Your task to perform on an android device: open app "Viber Messenger" Image 0: 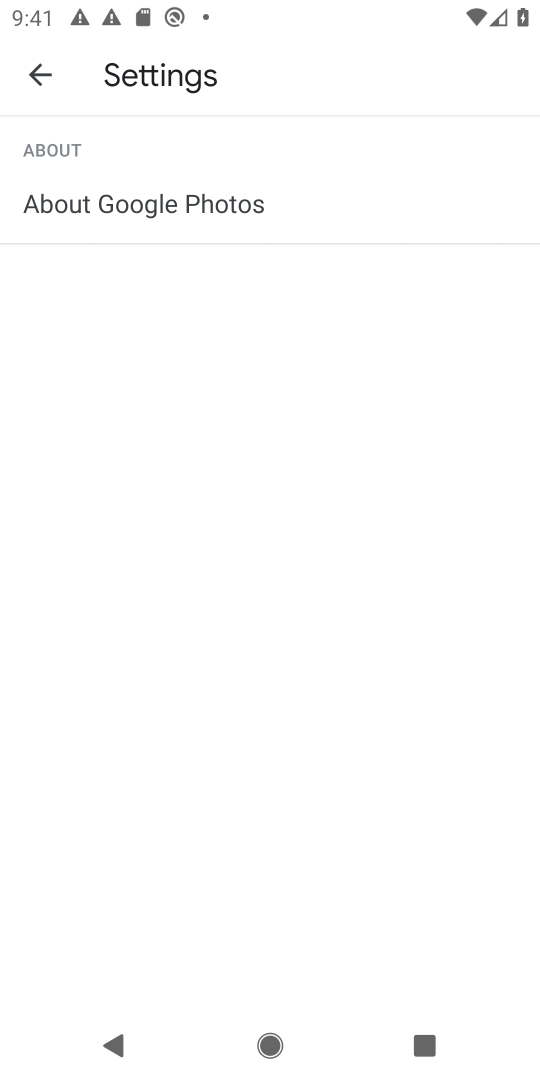
Step 0: press home button
Your task to perform on an android device: open app "Viber Messenger" Image 1: 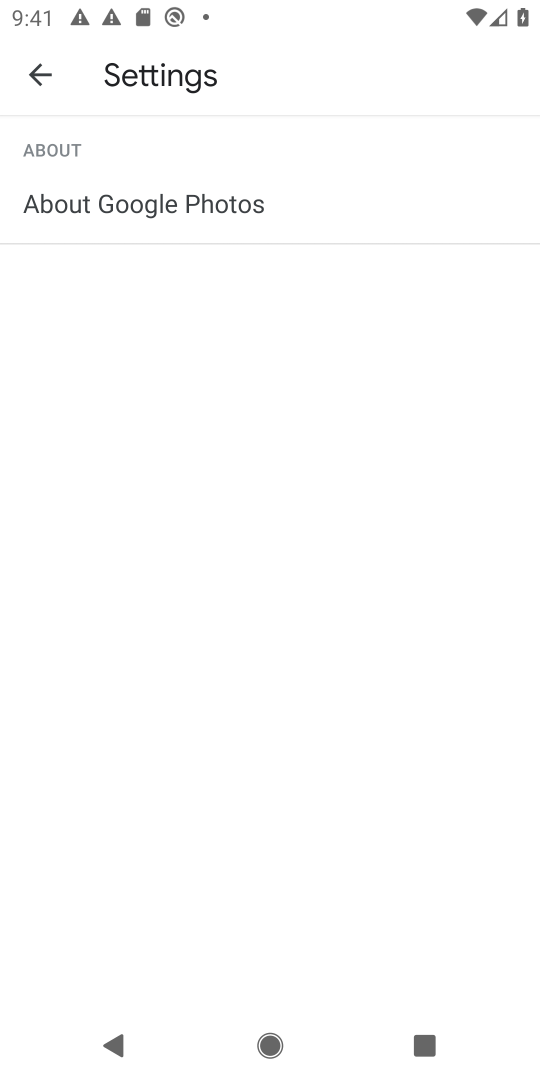
Step 1: press home button
Your task to perform on an android device: open app "Viber Messenger" Image 2: 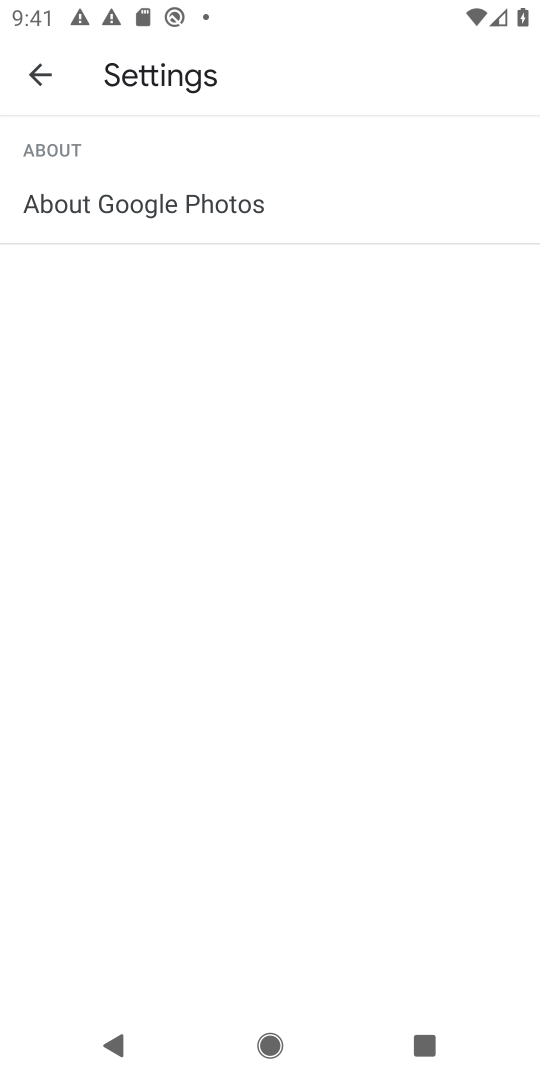
Step 2: drag from (343, 495) to (407, 54)
Your task to perform on an android device: open app "Viber Messenger" Image 3: 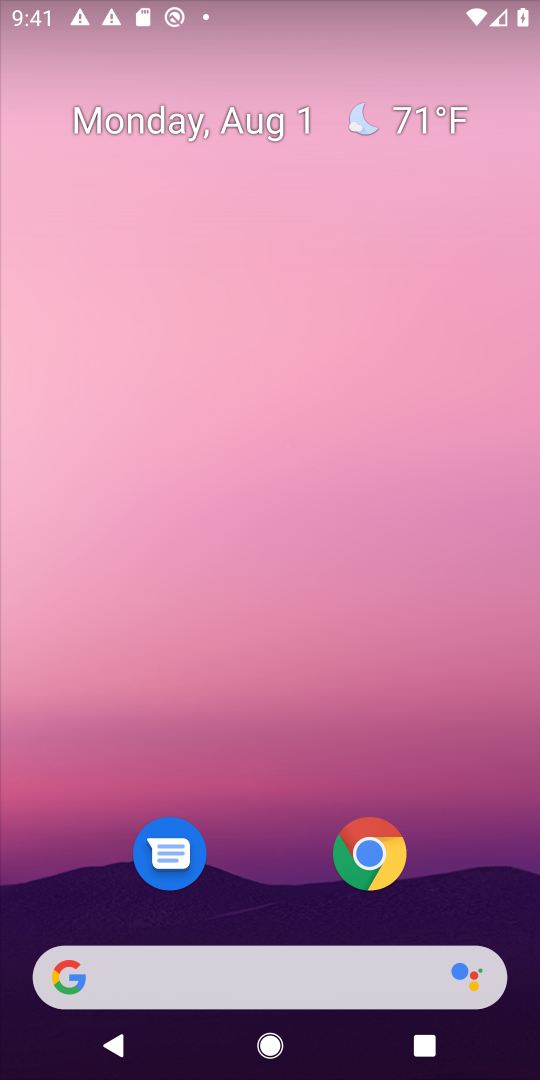
Step 3: drag from (228, 940) to (365, 294)
Your task to perform on an android device: open app "Viber Messenger" Image 4: 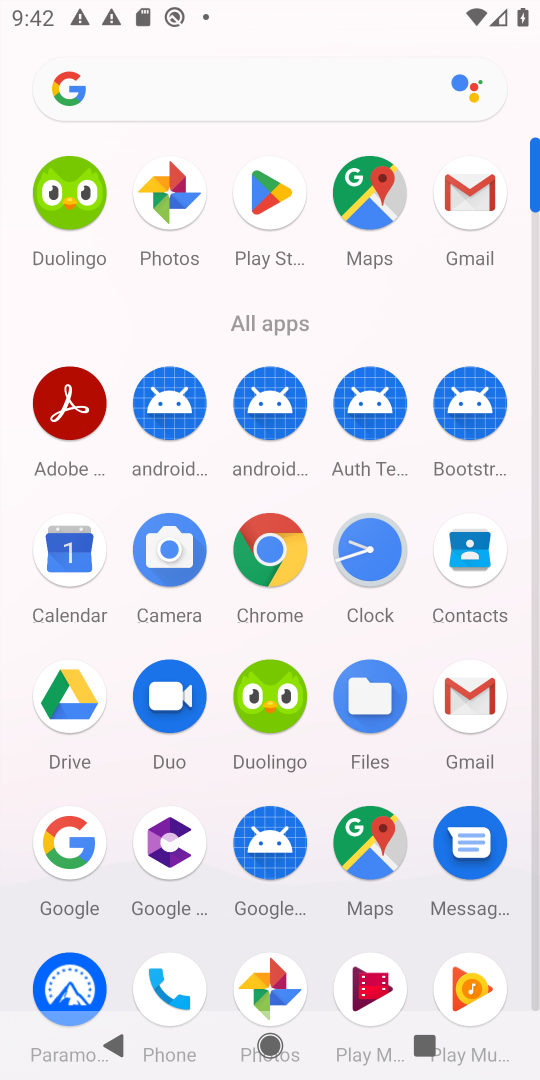
Step 4: click (262, 190)
Your task to perform on an android device: open app "Viber Messenger" Image 5: 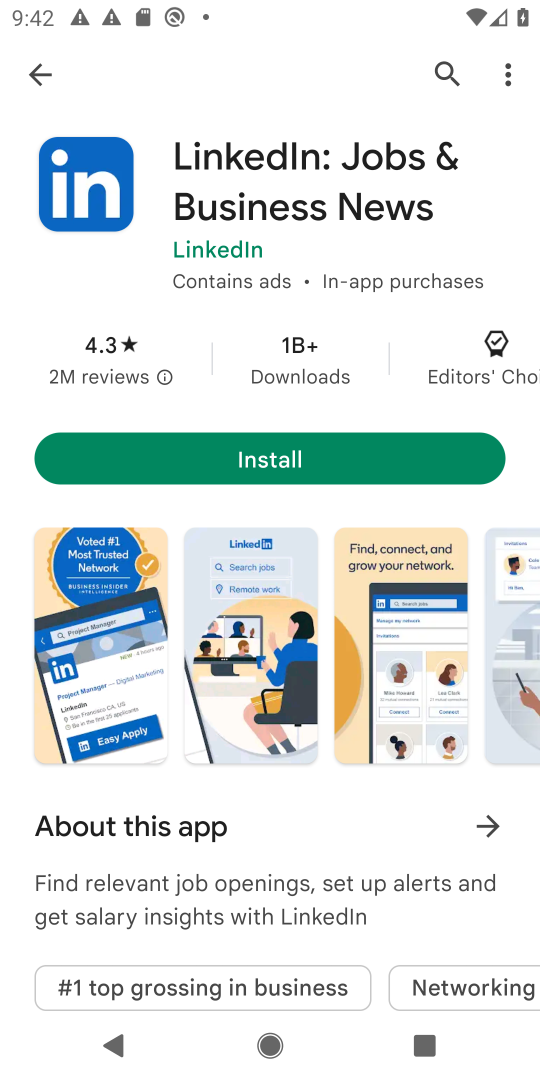
Step 5: click (457, 63)
Your task to perform on an android device: open app "Viber Messenger" Image 6: 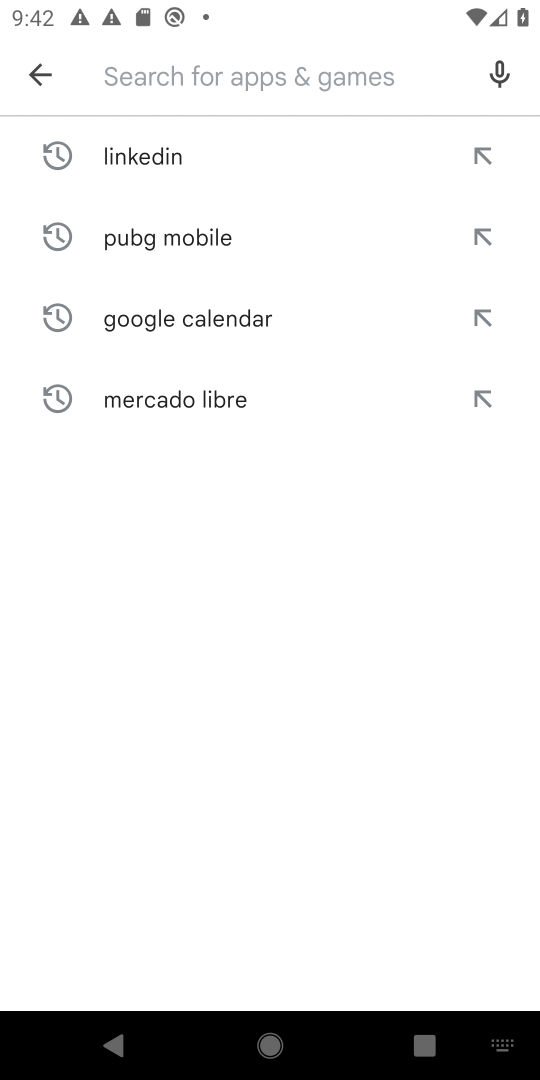
Step 6: click (179, 90)
Your task to perform on an android device: open app "Viber Messenger" Image 7: 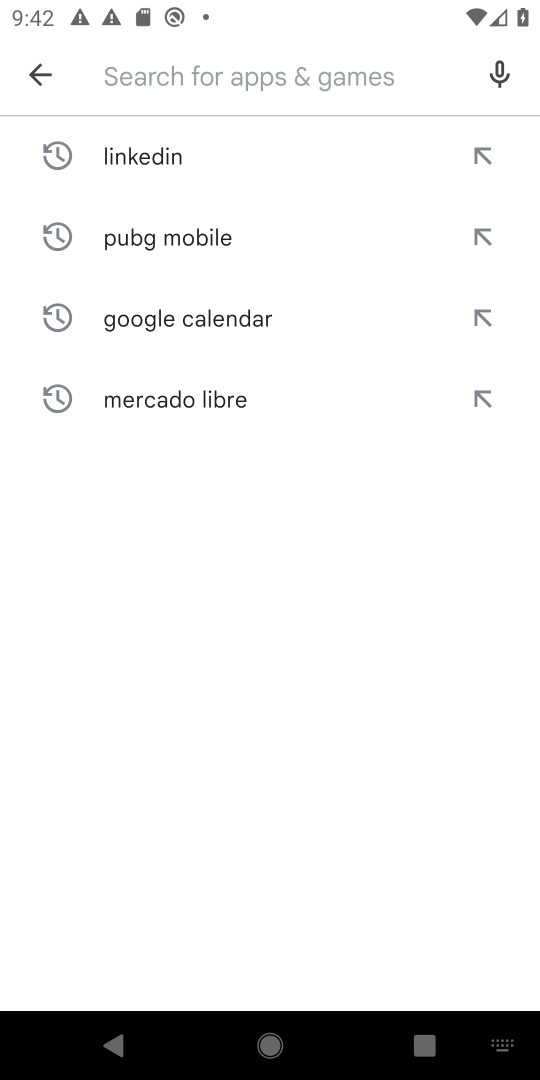
Step 7: type "Viber Messenger"
Your task to perform on an android device: open app "Viber Messenger" Image 8: 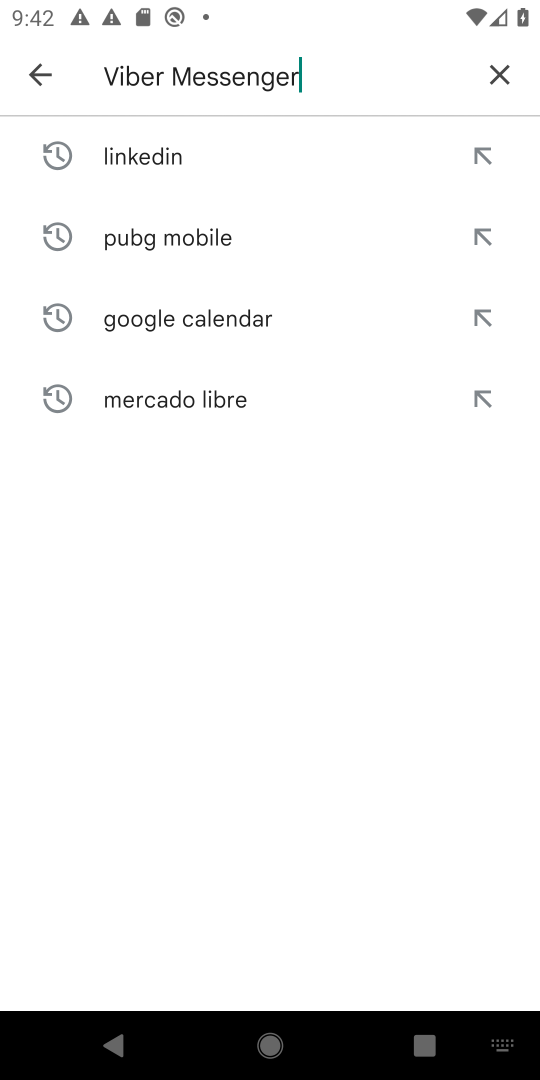
Step 8: type ""
Your task to perform on an android device: open app "Viber Messenger" Image 9: 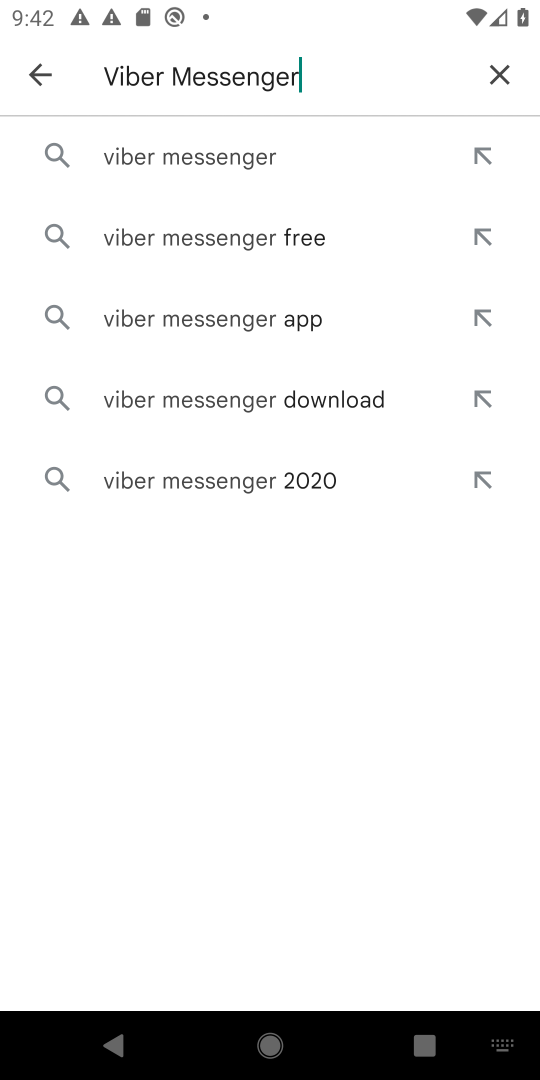
Step 9: click (161, 169)
Your task to perform on an android device: open app "Viber Messenger" Image 10: 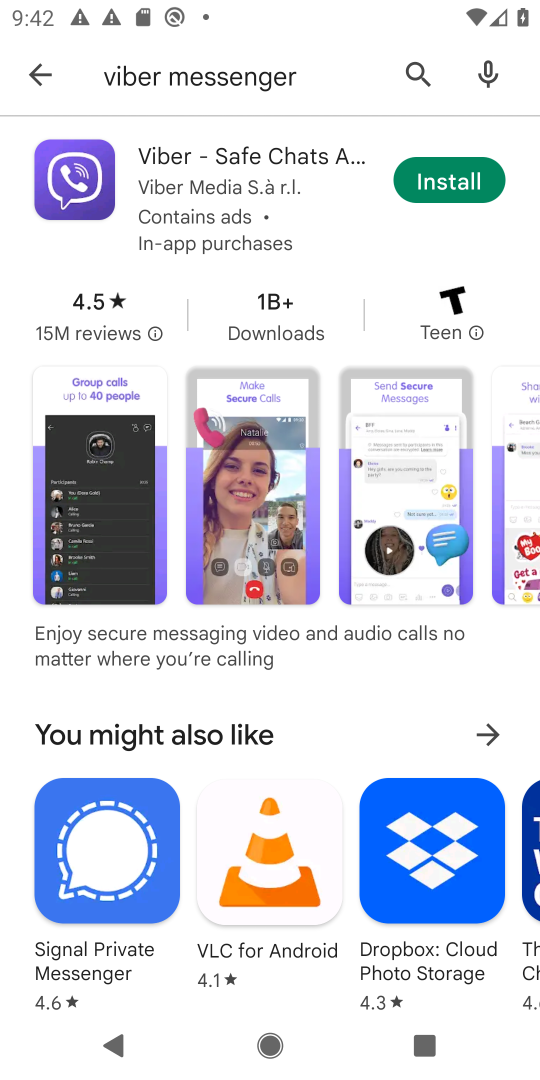
Step 10: click (183, 181)
Your task to perform on an android device: open app "Viber Messenger" Image 11: 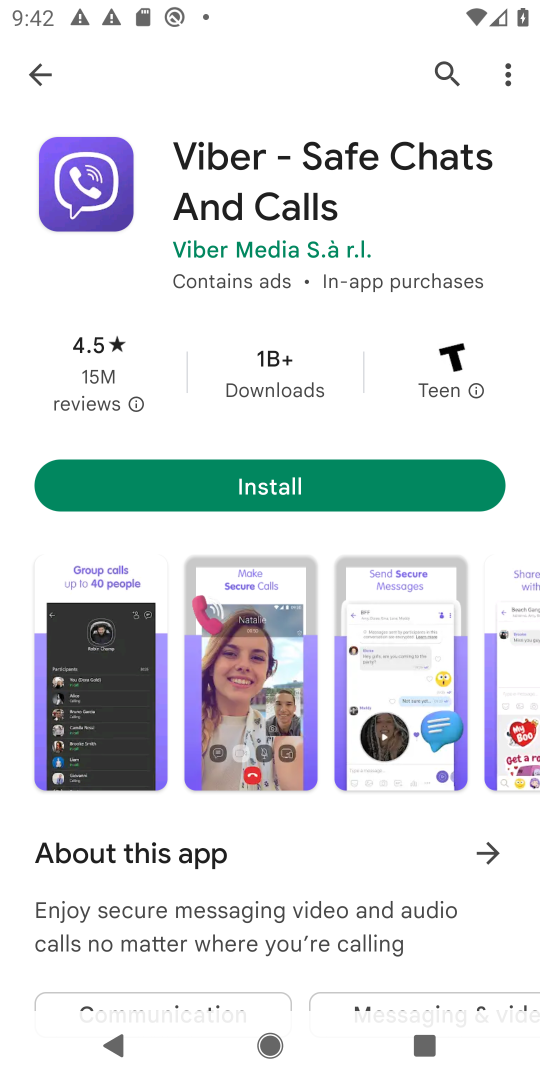
Step 11: task complete